Your task to perform on an android device: What's on my calendar today? Image 0: 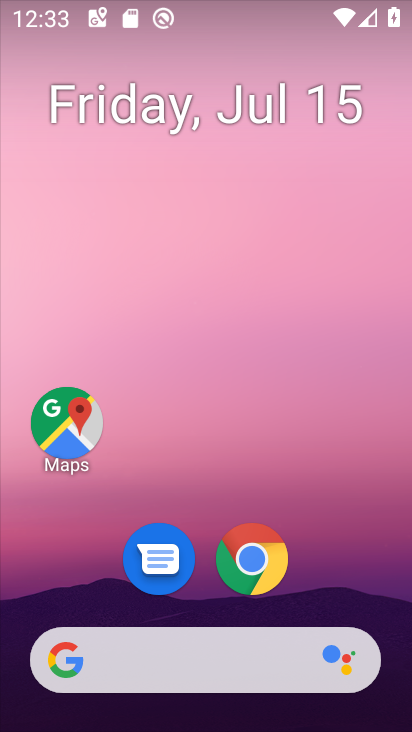
Step 0: drag from (349, 554) to (379, 157)
Your task to perform on an android device: What's on my calendar today? Image 1: 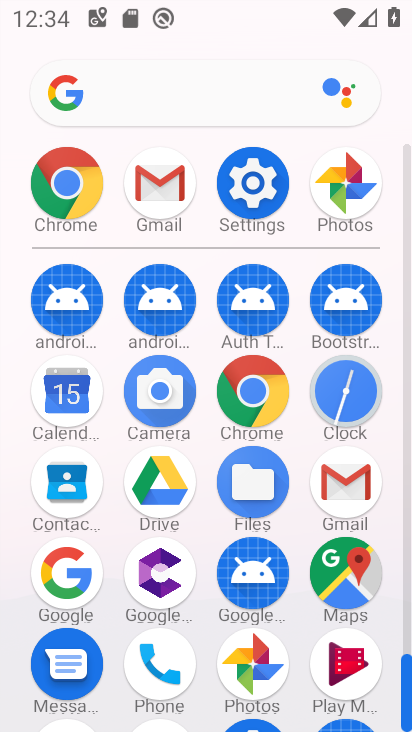
Step 1: click (69, 409)
Your task to perform on an android device: What's on my calendar today? Image 2: 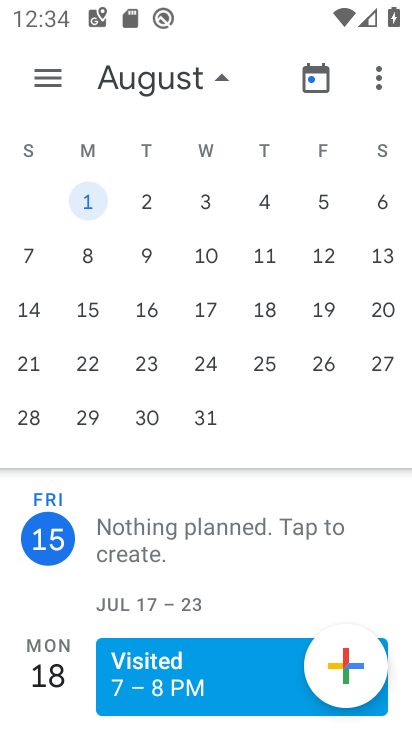
Step 2: task complete